Your task to perform on an android device: Search for Mexican restaurants on Maps Image 0: 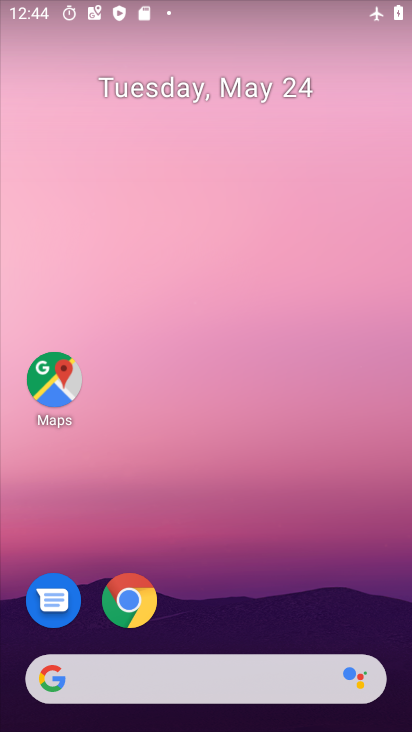
Step 0: click (42, 383)
Your task to perform on an android device: Search for Mexican restaurants on Maps Image 1: 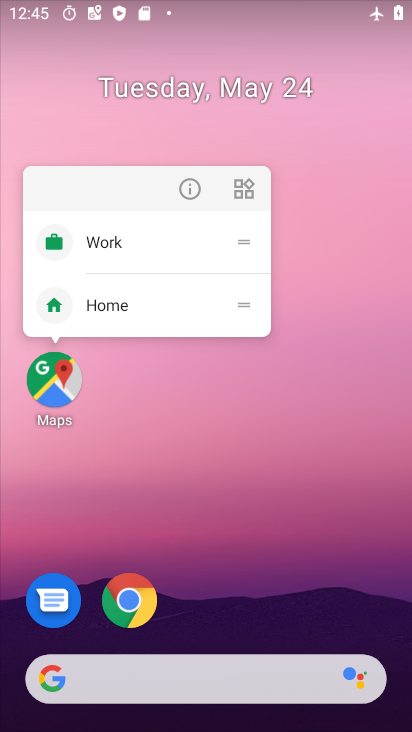
Step 1: click (41, 378)
Your task to perform on an android device: Search for Mexican restaurants on Maps Image 2: 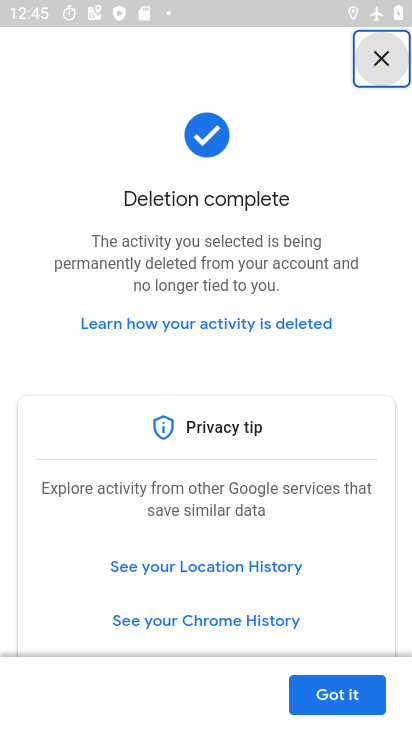
Step 2: click (356, 698)
Your task to perform on an android device: Search for Mexican restaurants on Maps Image 3: 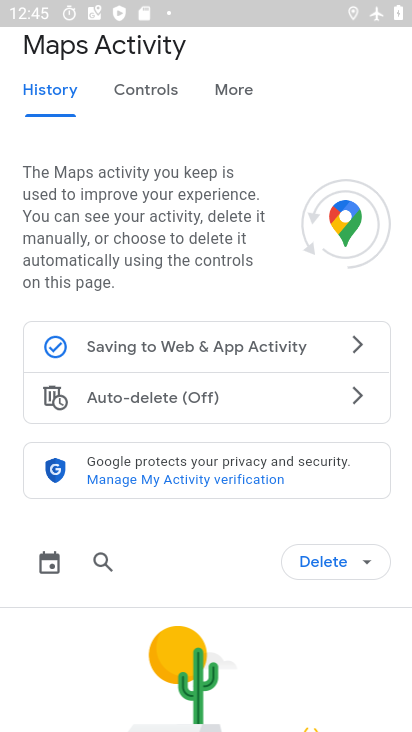
Step 3: press back button
Your task to perform on an android device: Search for Mexican restaurants on Maps Image 4: 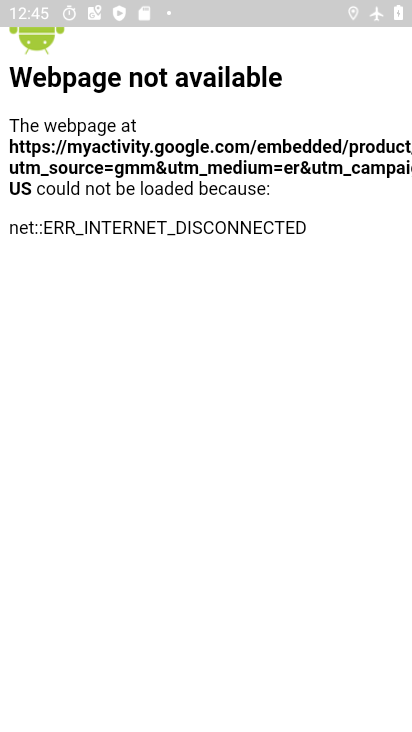
Step 4: press back button
Your task to perform on an android device: Search for Mexican restaurants on Maps Image 5: 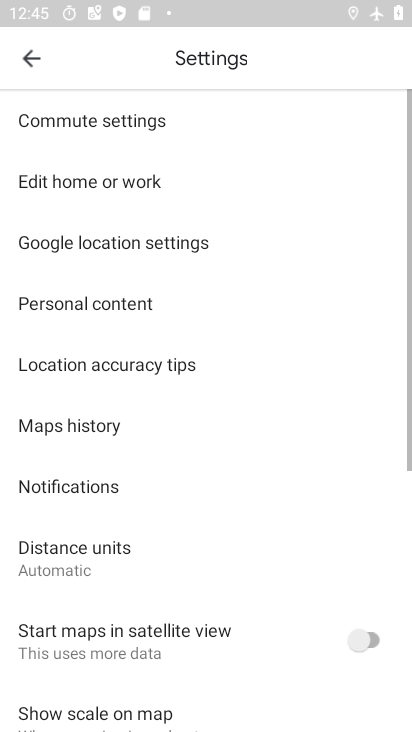
Step 5: press back button
Your task to perform on an android device: Search for Mexican restaurants on Maps Image 6: 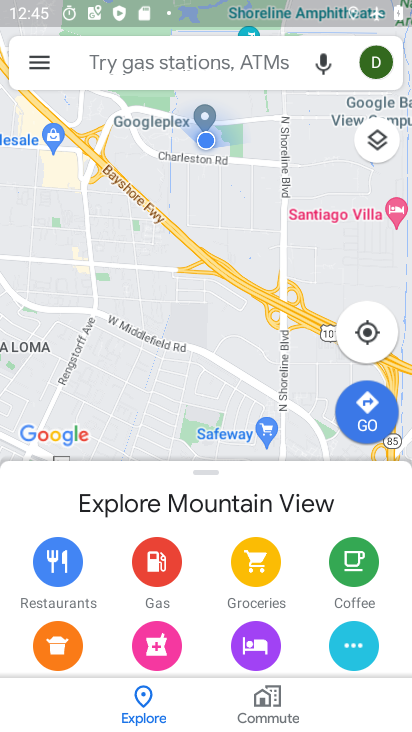
Step 6: click (172, 56)
Your task to perform on an android device: Search for Mexican restaurants on Maps Image 7: 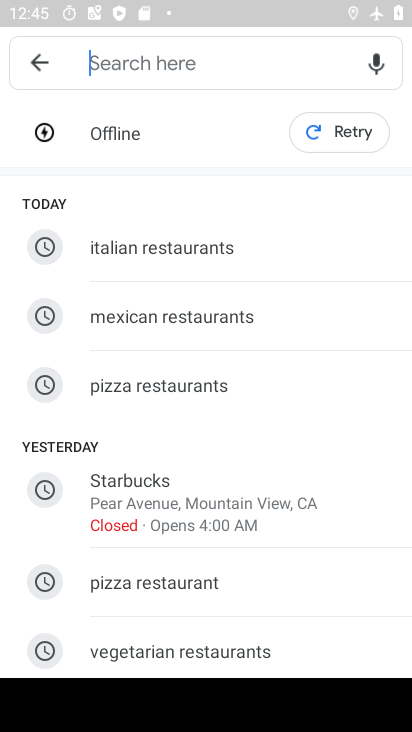
Step 7: click (228, 313)
Your task to perform on an android device: Search for Mexican restaurants on Maps Image 8: 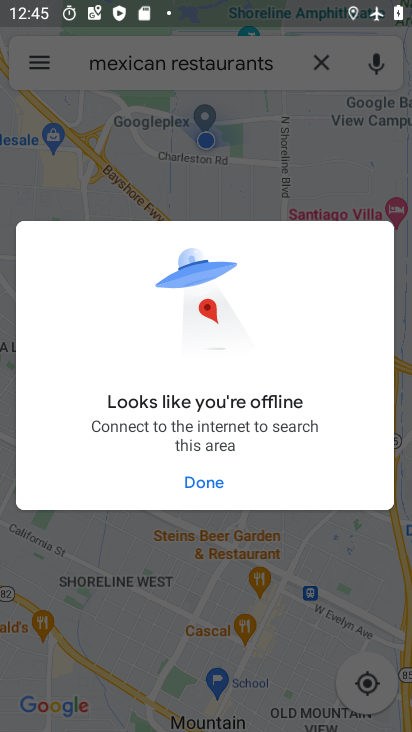
Step 8: task complete